Your task to perform on an android device: Open calendar and show me the first week of next month Image 0: 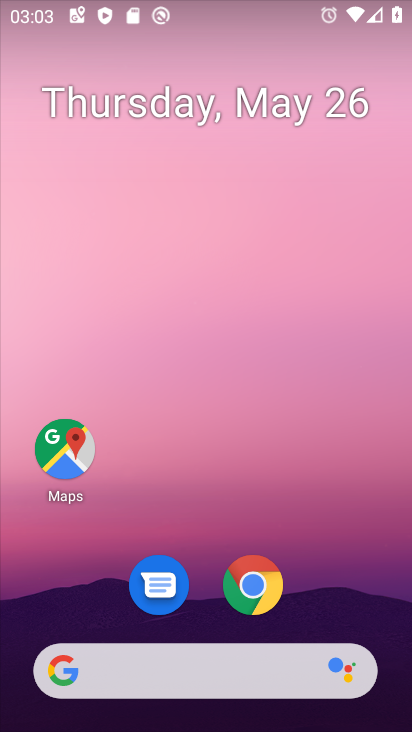
Step 0: drag from (229, 507) to (285, 117)
Your task to perform on an android device: Open calendar and show me the first week of next month Image 1: 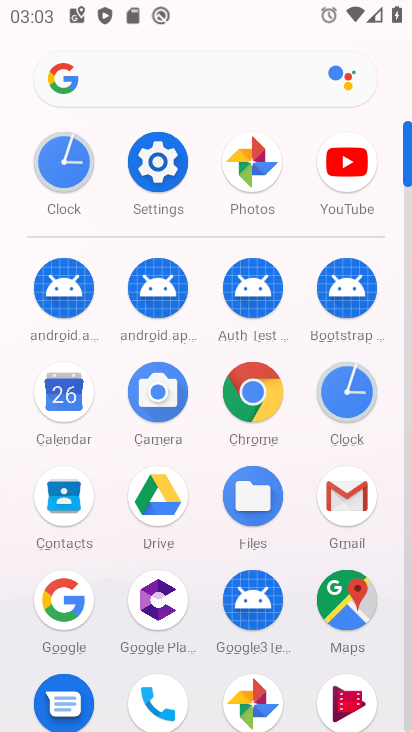
Step 1: click (72, 391)
Your task to perform on an android device: Open calendar and show me the first week of next month Image 2: 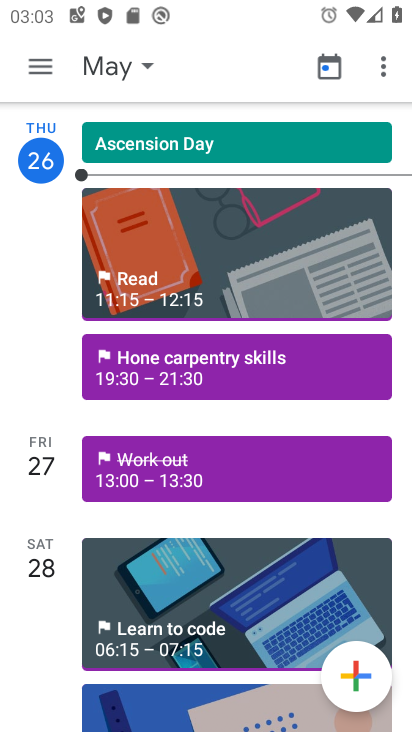
Step 2: click (40, 64)
Your task to perform on an android device: Open calendar and show me the first week of next month Image 3: 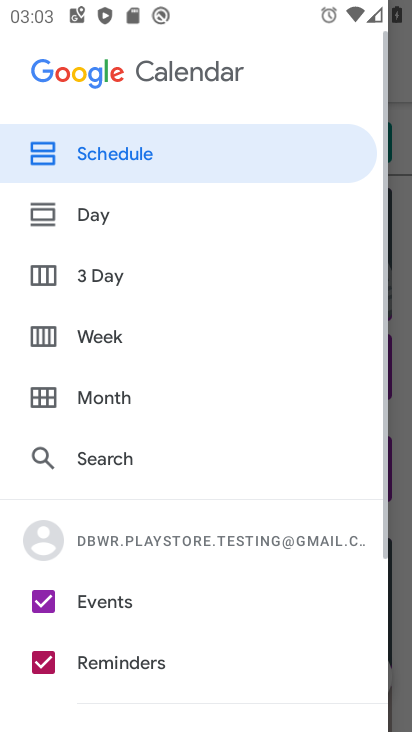
Step 3: click (45, 330)
Your task to perform on an android device: Open calendar and show me the first week of next month Image 4: 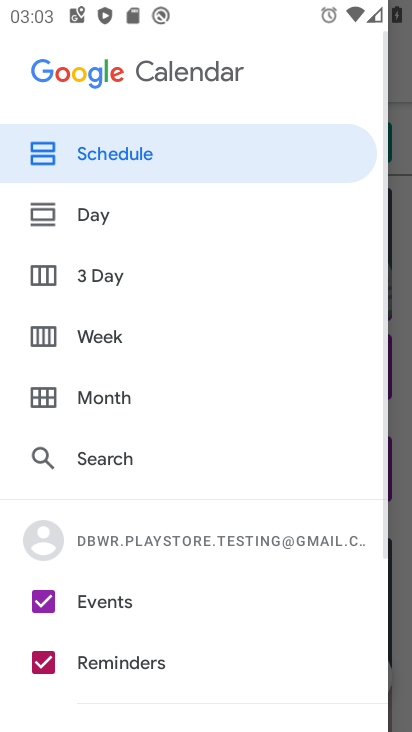
Step 4: click (45, 328)
Your task to perform on an android device: Open calendar and show me the first week of next month Image 5: 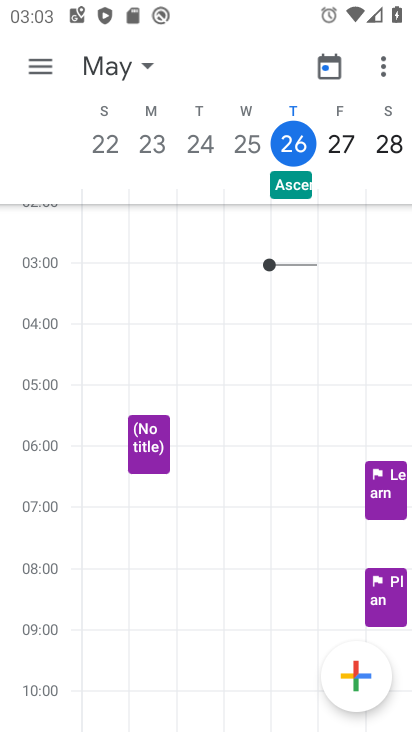
Step 5: task complete